Your task to perform on an android device: toggle javascript in the chrome app Image 0: 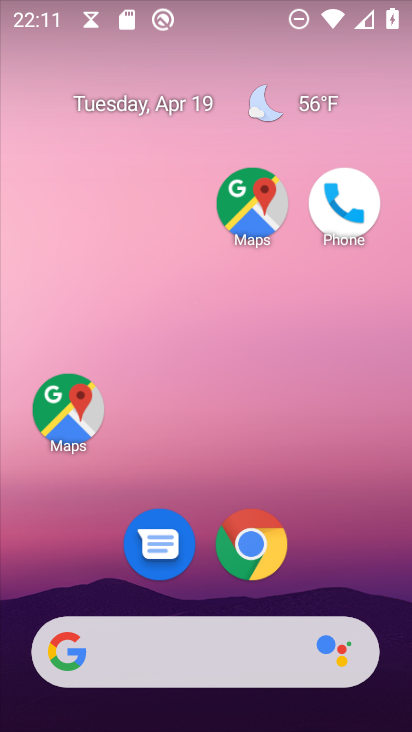
Step 0: drag from (202, 616) to (366, 38)
Your task to perform on an android device: toggle javascript in the chrome app Image 1: 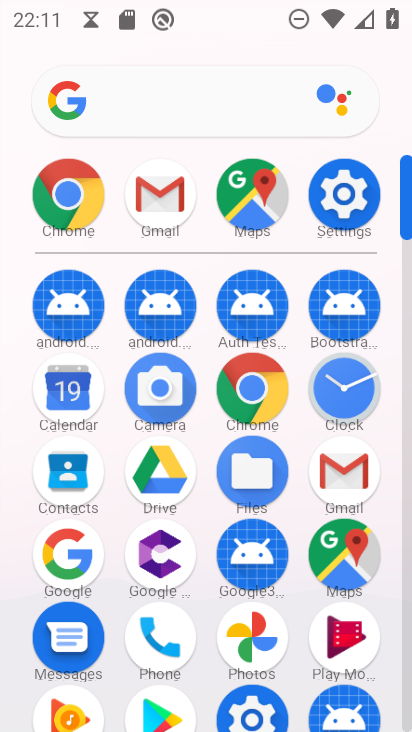
Step 1: click (69, 214)
Your task to perform on an android device: toggle javascript in the chrome app Image 2: 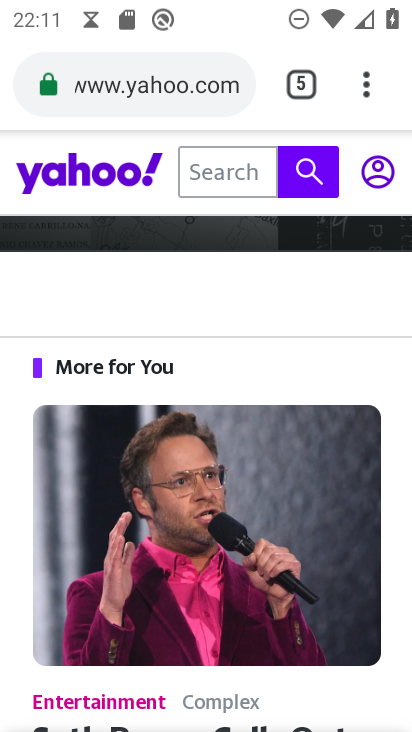
Step 2: click (366, 87)
Your task to perform on an android device: toggle javascript in the chrome app Image 3: 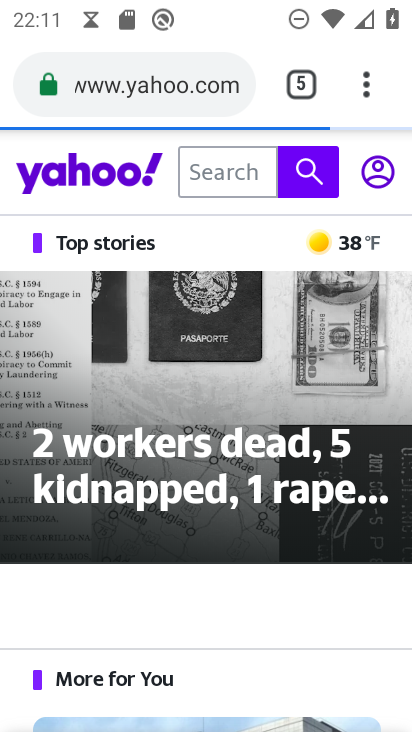
Step 3: click (366, 87)
Your task to perform on an android device: toggle javascript in the chrome app Image 4: 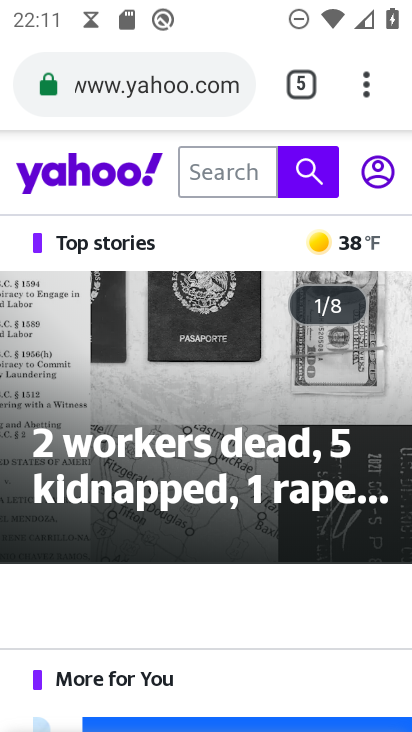
Step 4: click (366, 95)
Your task to perform on an android device: toggle javascript in the chrome app Image 5: 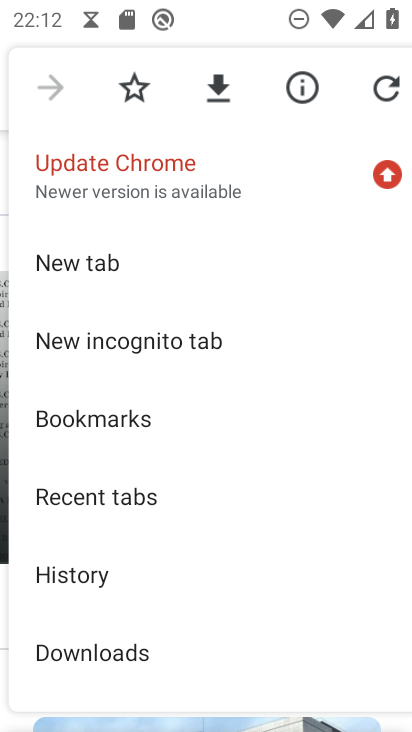
Step 5: drag from (153, 628) to (287, 144)
Your task to perform on an android device: toggle javascript in the chrome app Image 6: 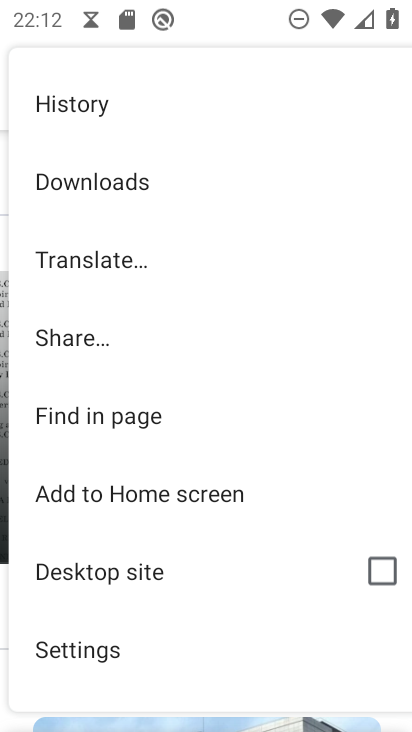
Step 6: click (113, 651)
Your task to perform on an android device: toggle javascript in the chrome app Image 7: 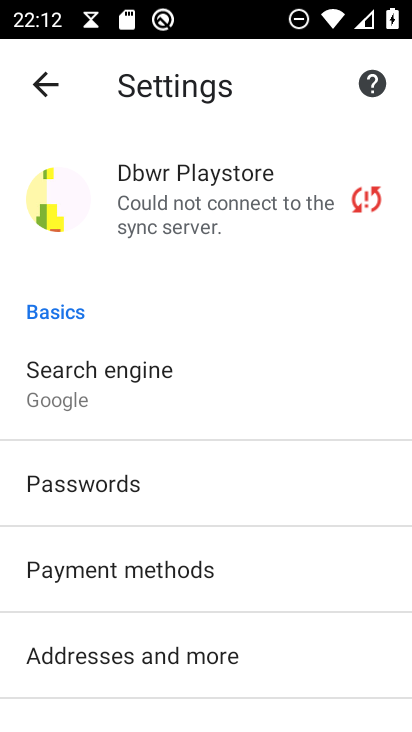
Step 7: drag from (209, 641) to (384, 122)
Your task to perform on an android device: toggle javascript in the chrome app Image 8: 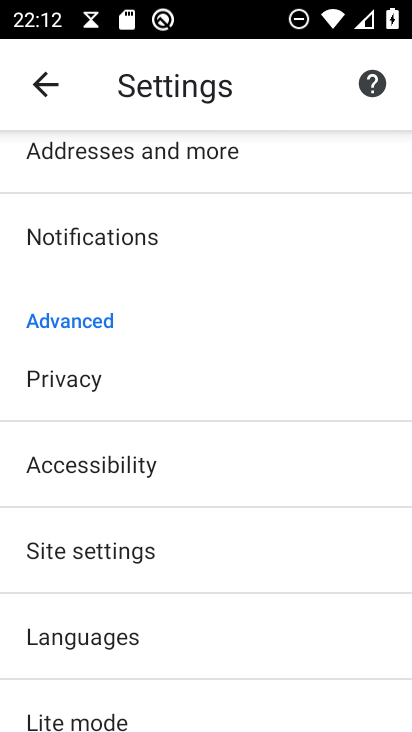
Step 8: click (132, 553)
Your task to perform on an android device: toggle javascript in the chrome app Image 9: 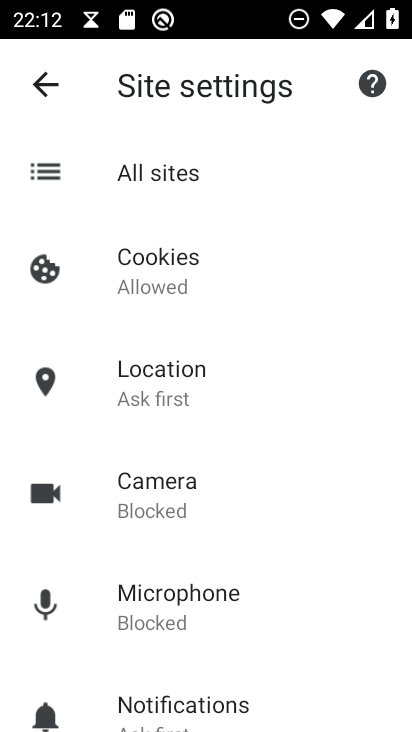
Step 9: drag from (197, 656) to (351, 159)
Your task to perform on an android device: toggle javascript in the chrome app Image 10: 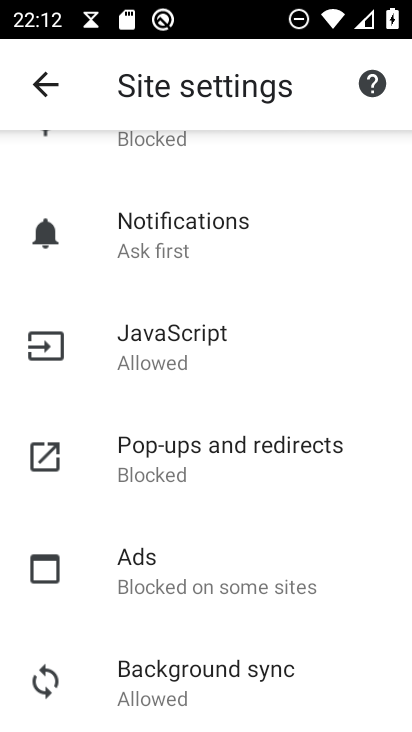
Step 10: click (151, 332)
Your task to perform on an android device: toggle javascript in the chrome app Image 11: 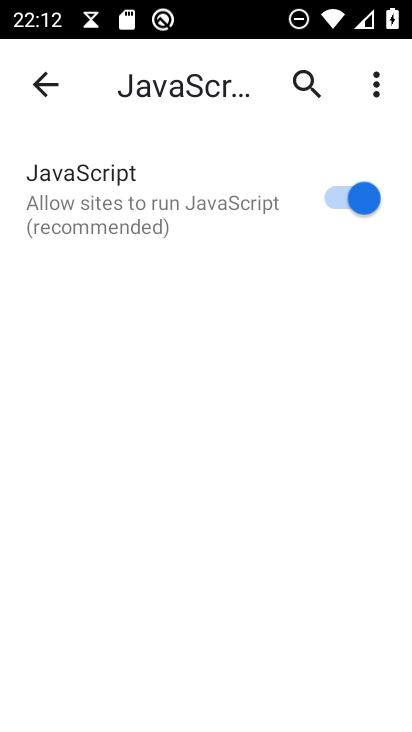
Step 11: click (338, 199)
Your task to perform on an android device: toggle javascript in the chrome app Image 12: 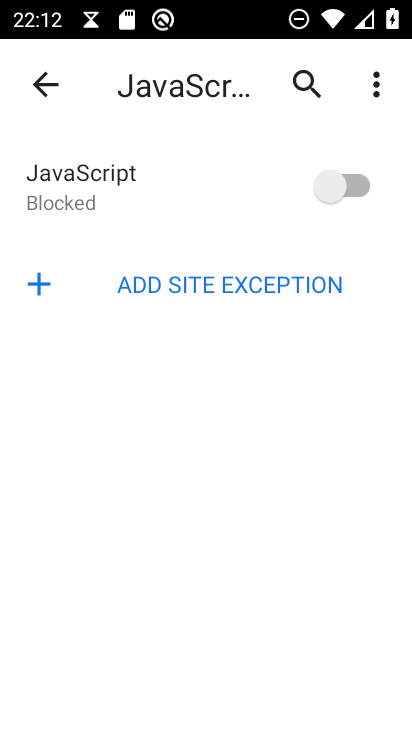
Step 12: task complete